Your task to perform on an android device: clear history in the chrome app Image 0: 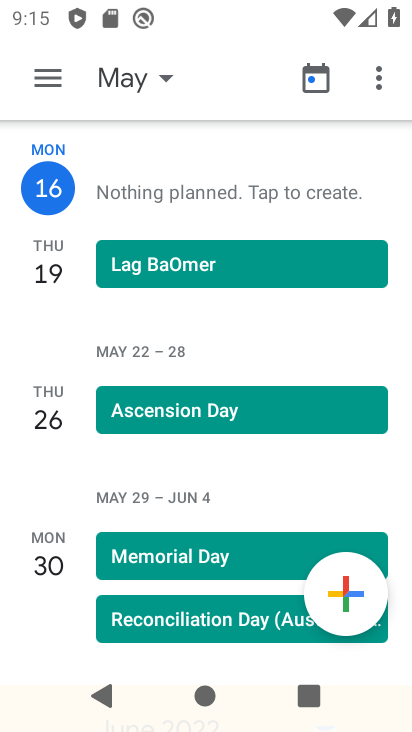
Step 0: press home button
Your task to perform on an android device: clear history in the chrome app Image 1: 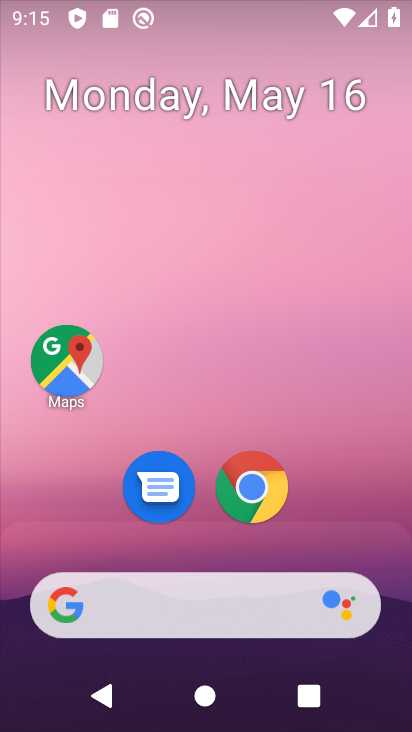
Step 1: click (261, 481)
Your task to perform on an android device: clear history in the chrome app Image 2: 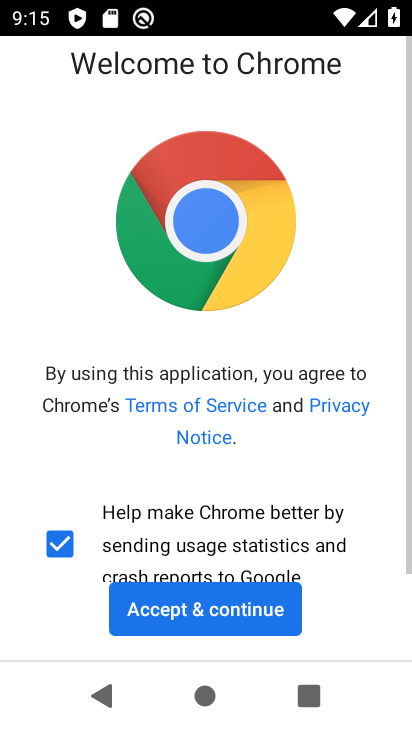
Step 2: click (203, 591)
Your task to perform on an android device: clear history in the chrome app Image 3: 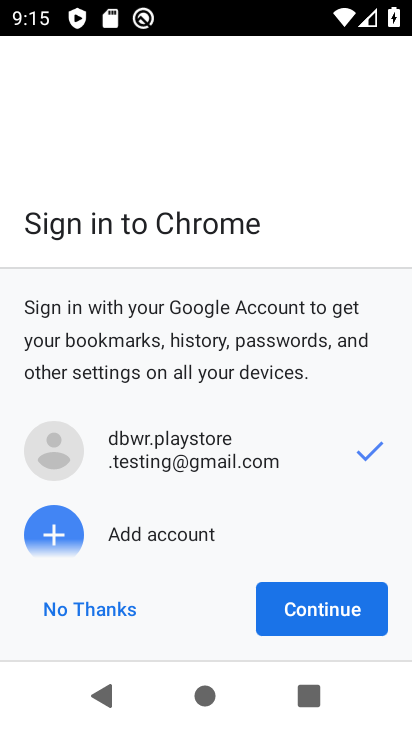
Step 3: click (359, 605)
Your task to perform on an android device: clear history in the chrome app Image 4: 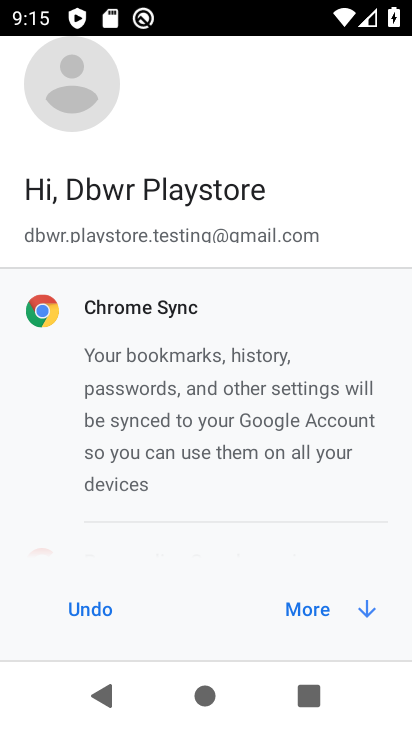
Step 4: click (359, 605)
Your task to perform on an android device: clear history in the chrome app Image 5: 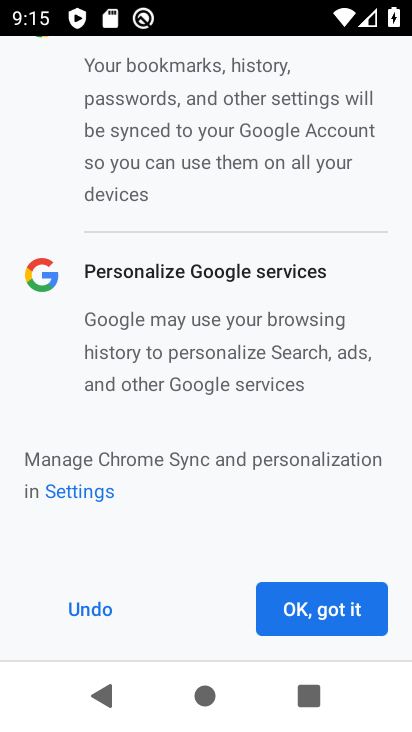
Step 5: click (359, 605)
Your task to perform on an android device: clear history in the chrome app Image 6: 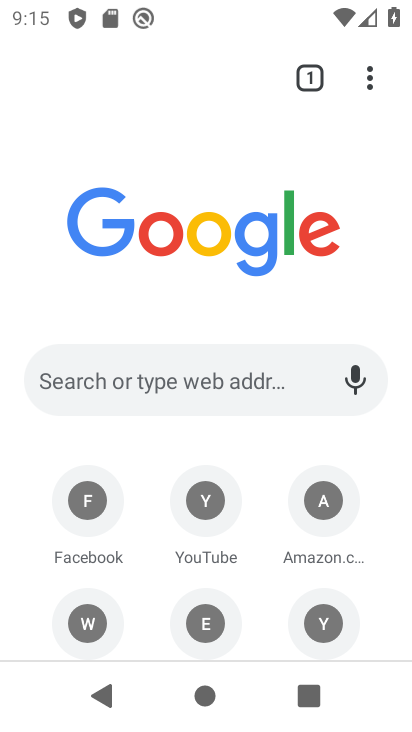
Step 6: click (370, 86)
Your task to perform on an android device: clear history in the chrome app Image 7: 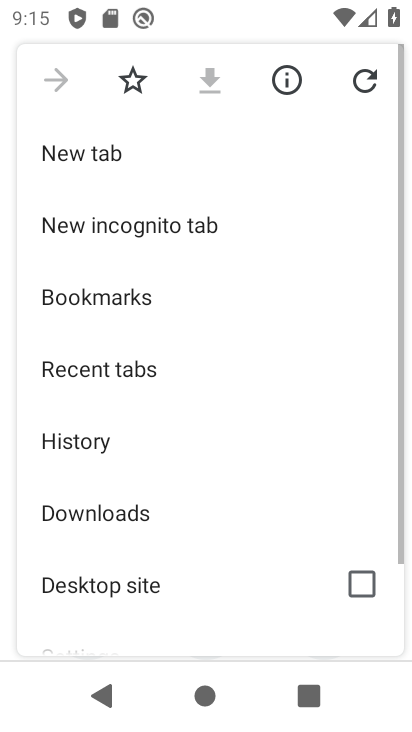
Step 7: drag from (245, 551) to (271, 134)
Your task to perform on an android device: clear history in the chrome app Image 8: 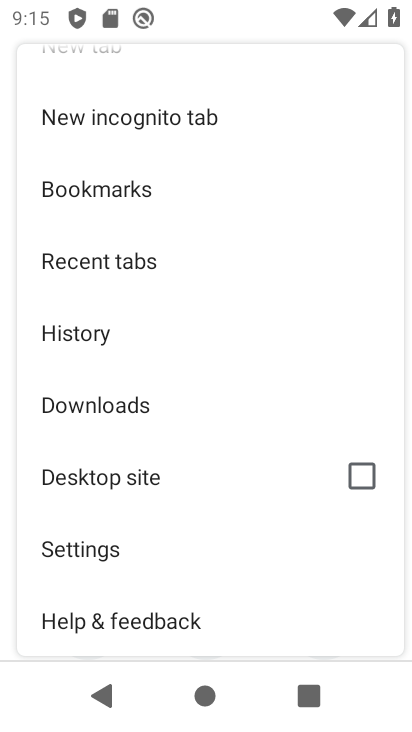
Step 8: click (140, 323)
Your task to perform on an android device: clear history in the chrome app Image 9: 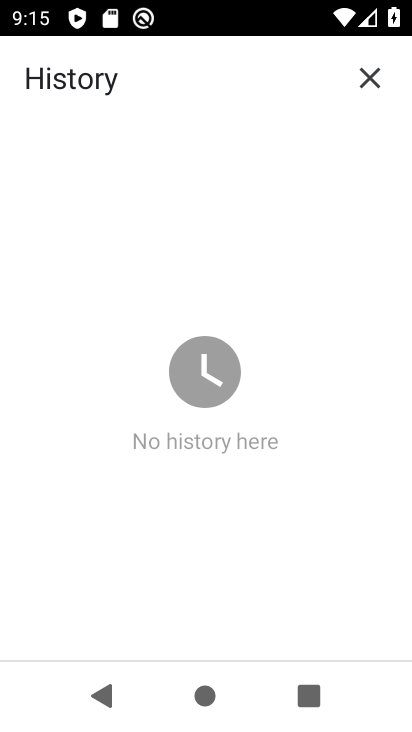
Step 9: task complete